Your task to perform on an android device: Open the calendar app, open the side menu, and click the "Day" option Image 0: 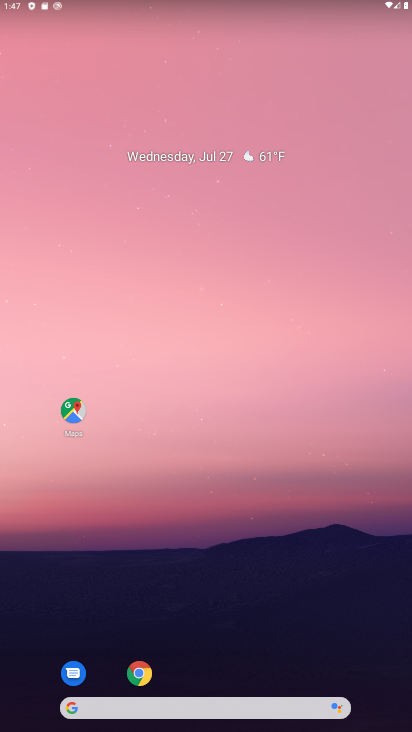
Step 0: click (165, 158)
Your task to perform on an android device: Open the calendar app, open the side menu, and click the "Day" option Image 1: 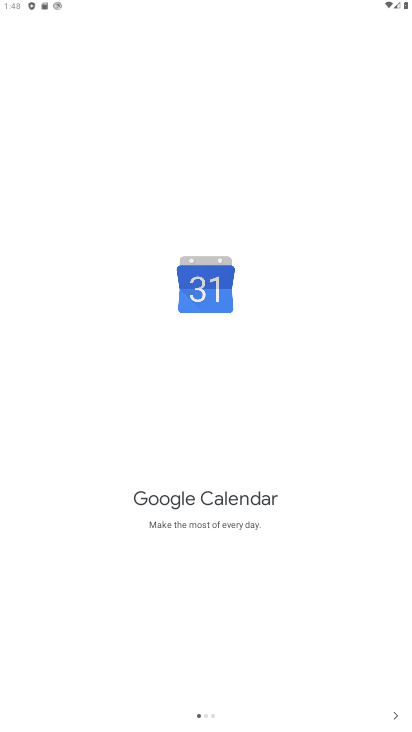
Step 1: click (394, 718)
Your task to perform on an android device: Open the calendar app, open the side menu, and click the "Day" option Image 2: 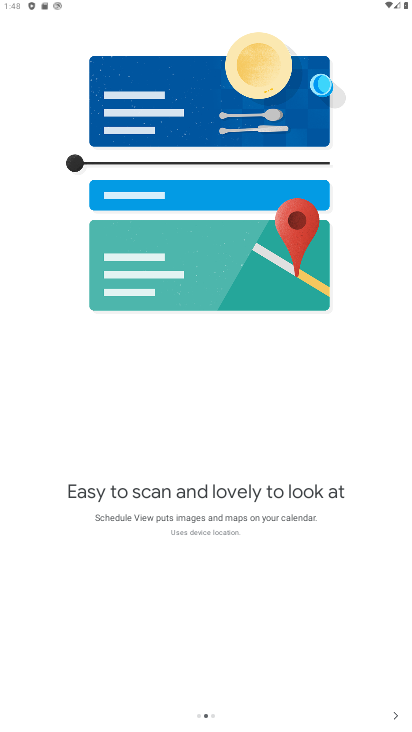
Step 2: click (394, 718)
Your task to perform on an android device: Open the calendar app, open the side menu, and click the "Day" option Image 3: 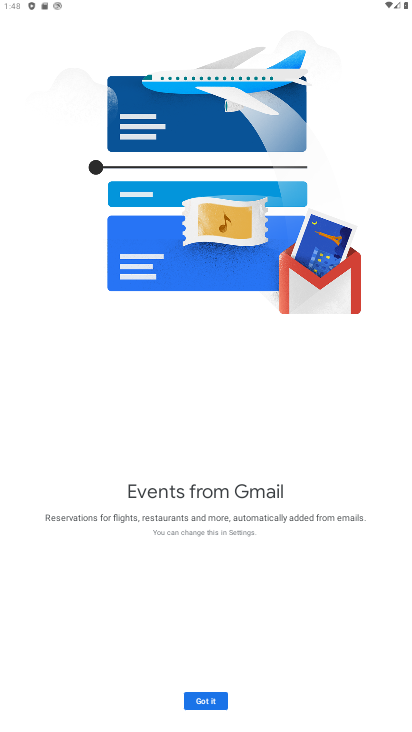
Step 3: click (394, 718)
Your task to perform on an android device: Open the calendar app, open the side menu, and click the "Day" option Image 4: 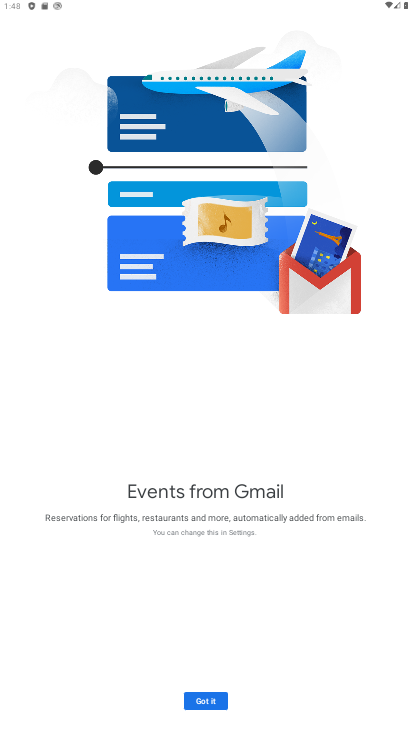
Step 4: click (217, 702)
Your task to perform on an android device: Open the calendar app, open the side menu, and click the "Day" option Image 5: 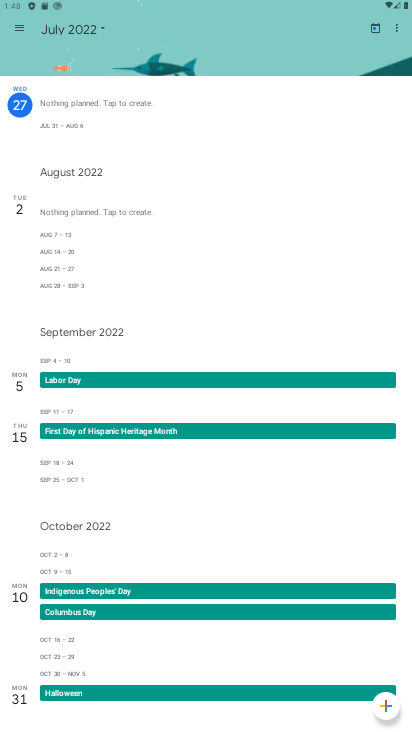
Step 5: click (23, 31)
Your task to perform on an android device: Open the calendar app, open the side menu, and click the "Day" option Image 6: 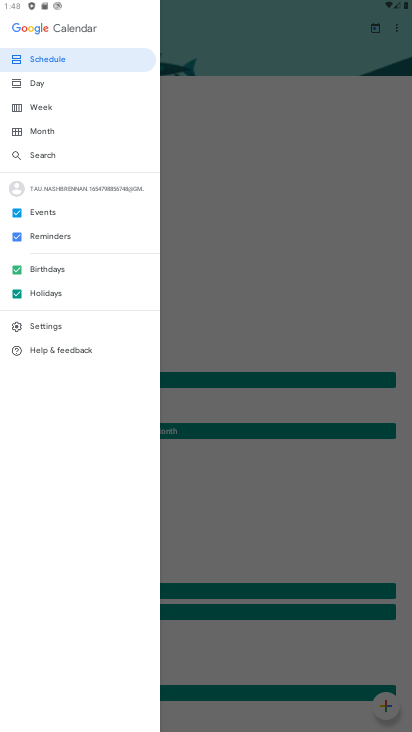
Step 6: click (64, 85)
Your task to perform on an android device: Open the calendar app, open the side menu, and click the "Day" option Image 7: 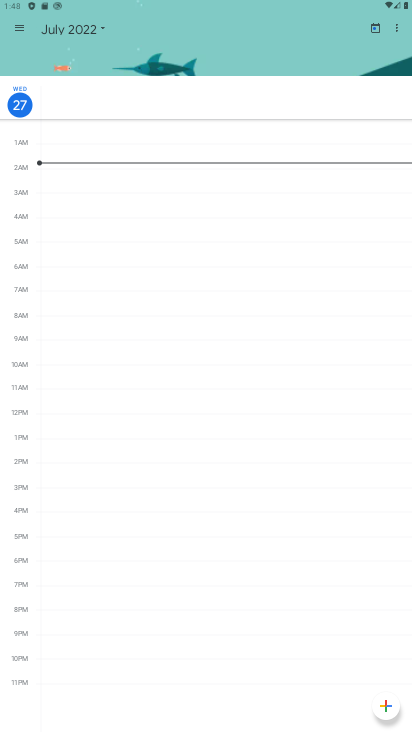
Step 7: task complete